Your task to perform on an android device: check out phone information Image 0: 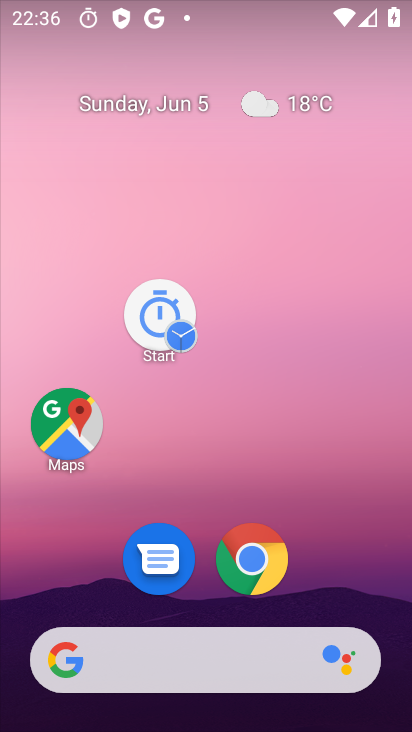
Step 0: drag from (272, 654) to (216, 63)
Your task to perform on an android device: check out phone information Image 1: 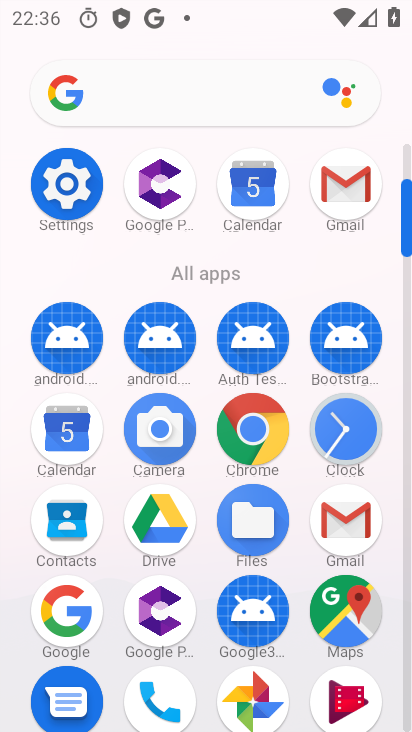
Step 1: click (167, 77)
Your task to perform on an android device: check out phone information Image 2: 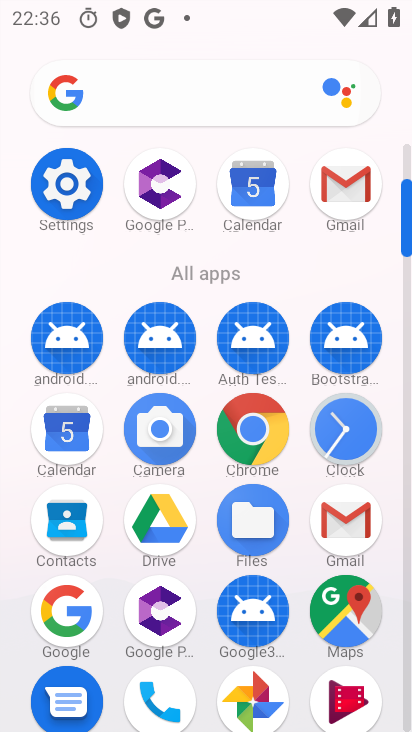
Step 2: drag from (185, 433) to (153, 148)
Your task to perform on an android device: check out phone information Image 3: 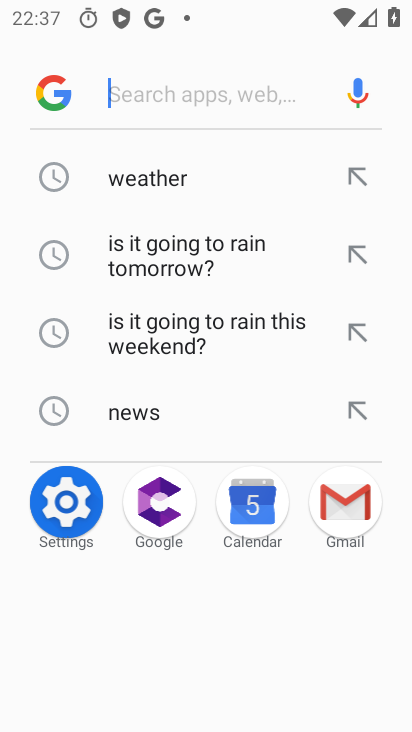
Step 3: drag from (304, 562) to (267, 259)
Your task to perform on an android device: check out phone information Image 4: 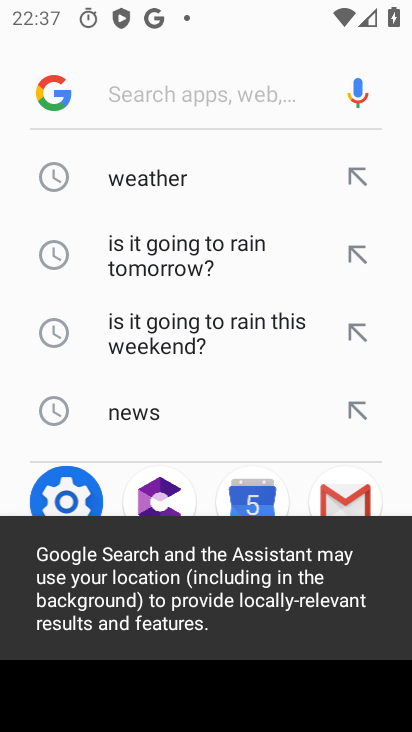
Step 4: press back button
Your task to perform on an android device: check out phone information Image 5: 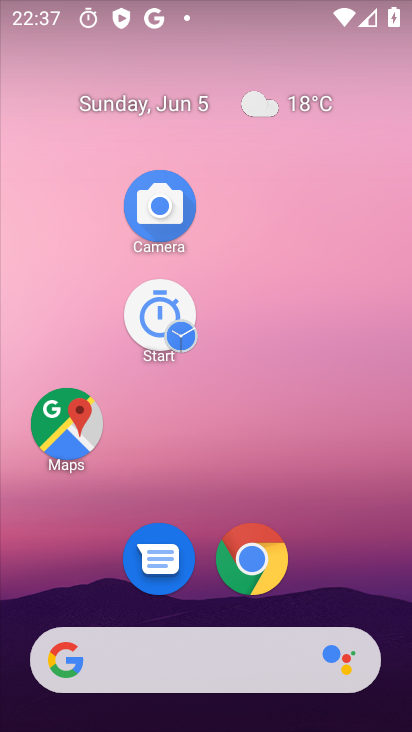
Step 5: drag from (270, 536) to (269, 181)
Your task to perform on an android device: check out phone information Image 6: 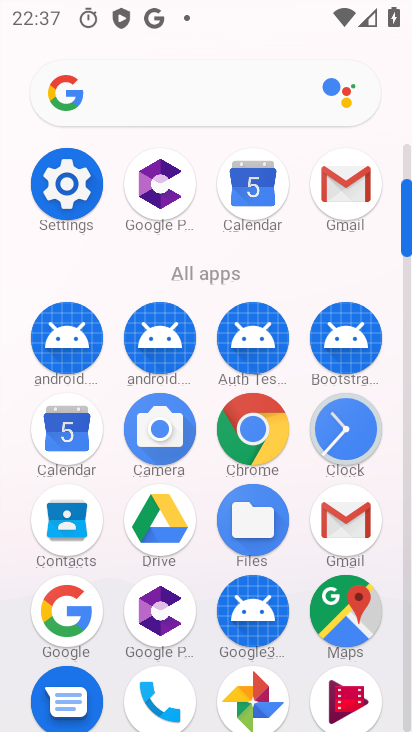
Step 6: click (157, 693)
Your task to perform on an android device: check out phone information Image 7: 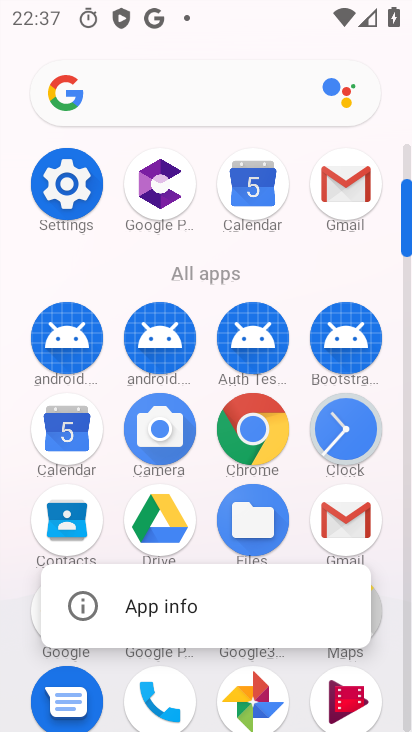
Step 7: click (287, 252)
Your task to perform on an android device: check out phone information Image 8: 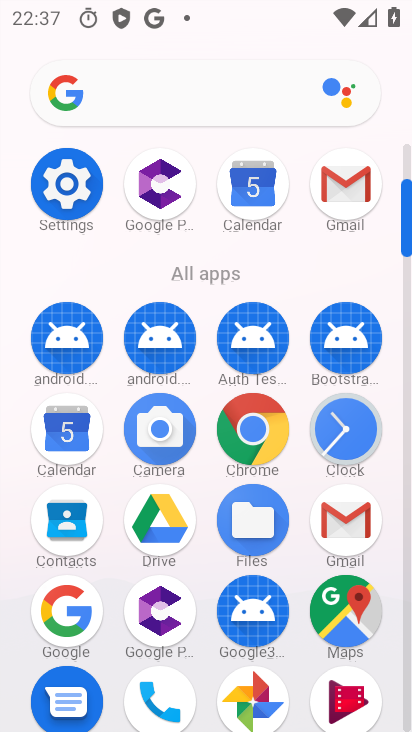
Step 8: click (70, 189)
Your task to perform on an android device: check out phone information Image 9: 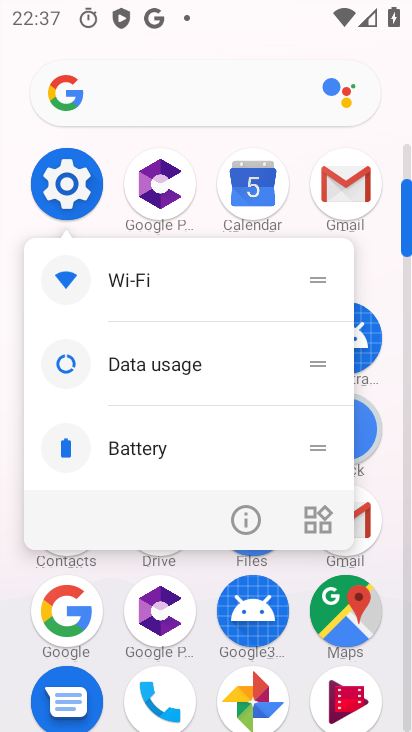
Step 9: click (63, 194)
Your task to perform on an android device: check out phone information Image 10: 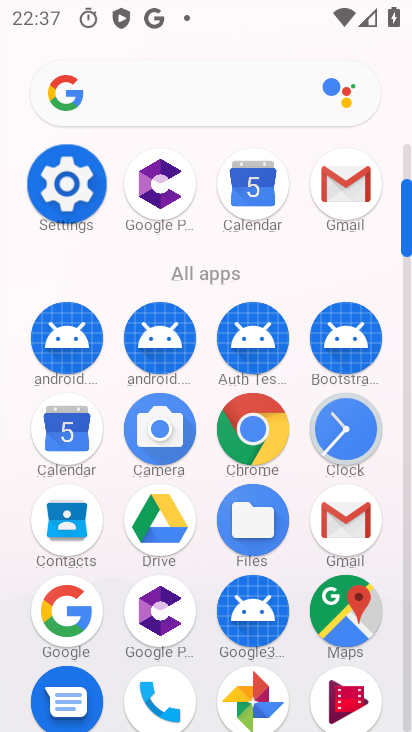
Step 10: click (62, 195)
Your task to perform on an android device: check out phone information Image 11: 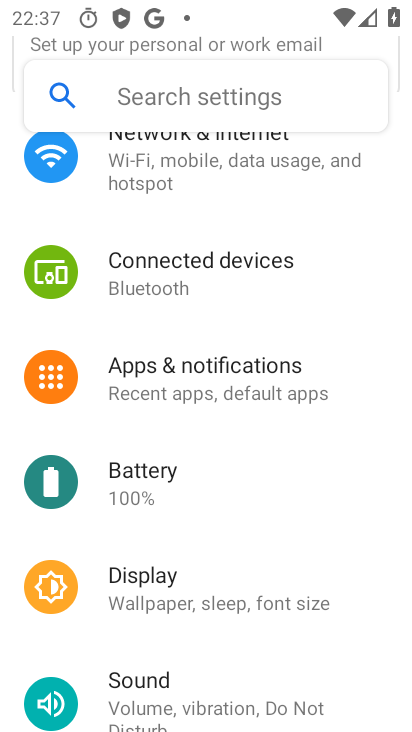
Step 11: click (62, 195)
Your task to perform on an android device: check out phone information Image 12: 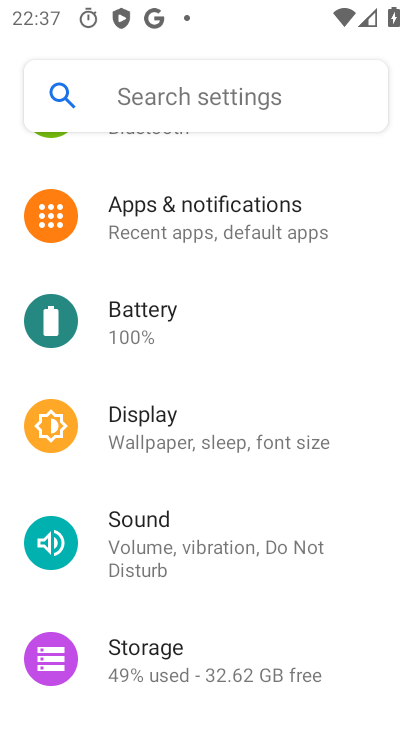
Step 12: drag from (205, 509) to (155, 133)
Your task to perform on an android device: check out phone information Image 13: 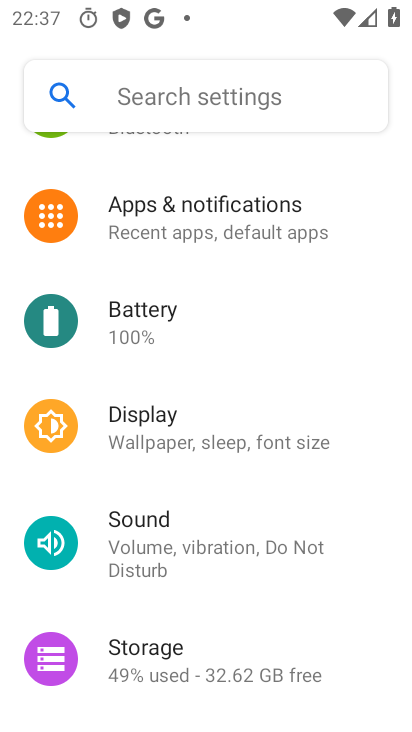
Step 13: drag from (172, 334) to (170, 147)
Your task to perform on an android device: check out phone information Image 14: 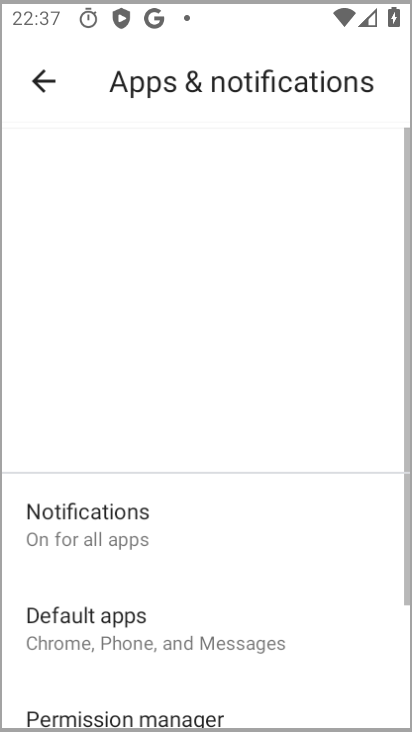
Step 14: drag from (198, 525) to (179, 115)
Your task to perform on an android device: check out phone information Image 15: 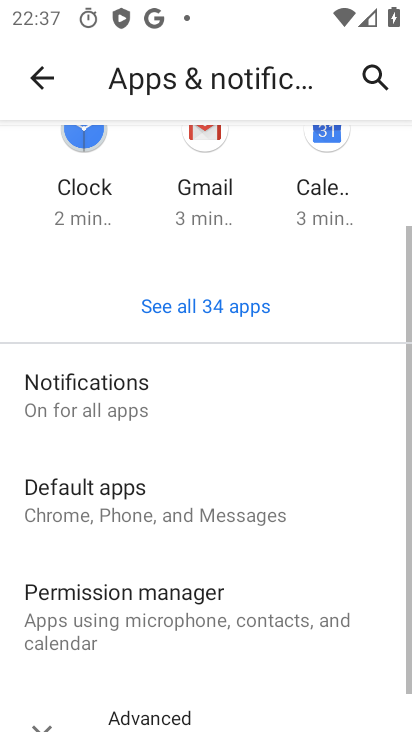
Step 15: click (42, 86)
Your task to perform on an android device: check out phone information Image 16: 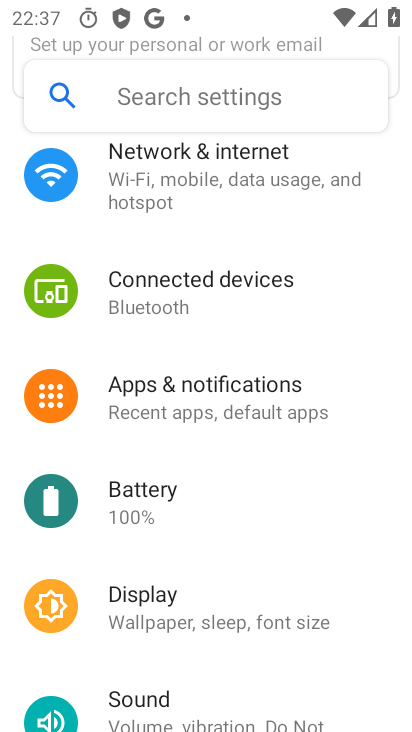
Step 16: drag from (177, 535) to (229, 34)
Your task to perform on an android device: check out phone information Image 17: 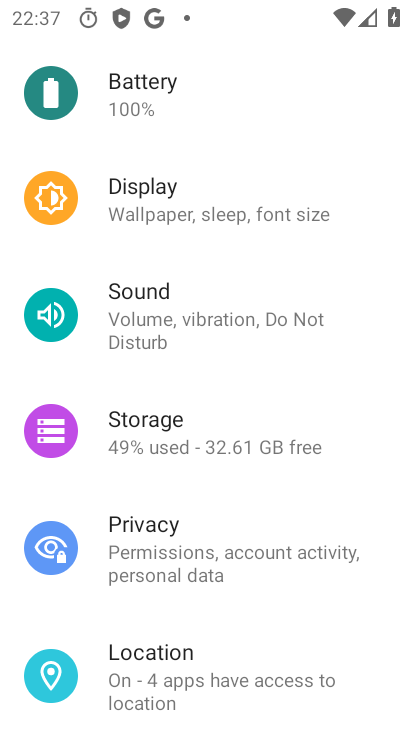
Step 17: drag from (238, 381) to (193, 109)
Your task to perform on an android device: check out phone information Image 18: 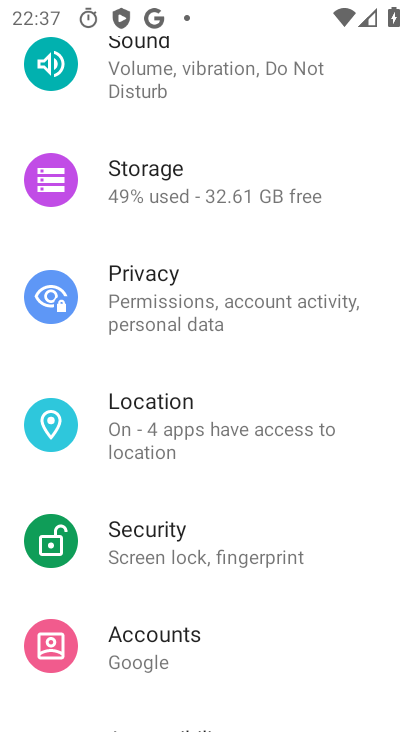
Step 18: drag from (125, 551) to (120, 175)
Your task to perform on an android device: check out phone information Image 19: 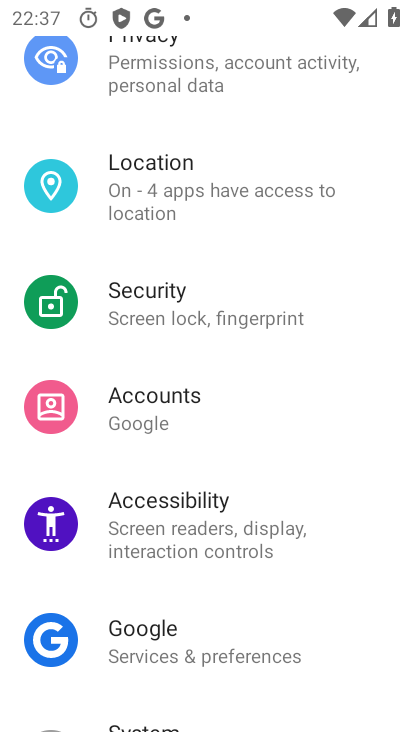
Step 19: drag from (135, 404) to (103, 183)
Your task to perform on an android device: check out phone information Image 20: 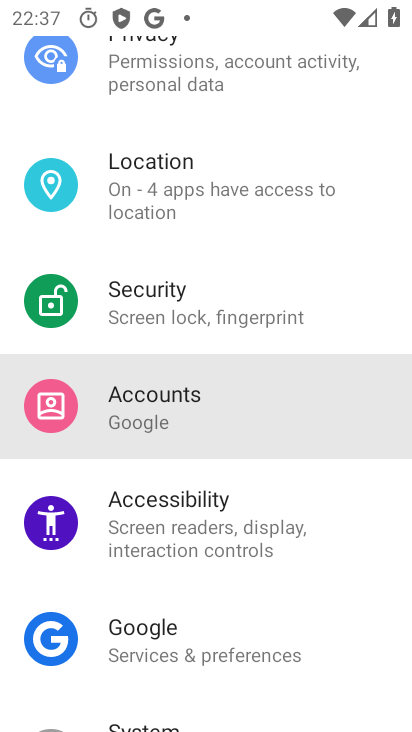
Step 20: drag from (180, 503) to (180, 223)
Your task to perform on an android device: check out phone information Image 21: 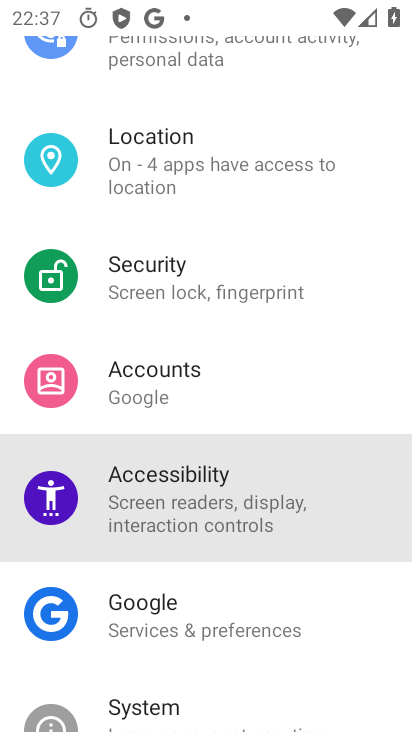
Step 21: drag from (195, 471) to (176, 220)
Your task to perform on an android device: check out phone information Image 22: 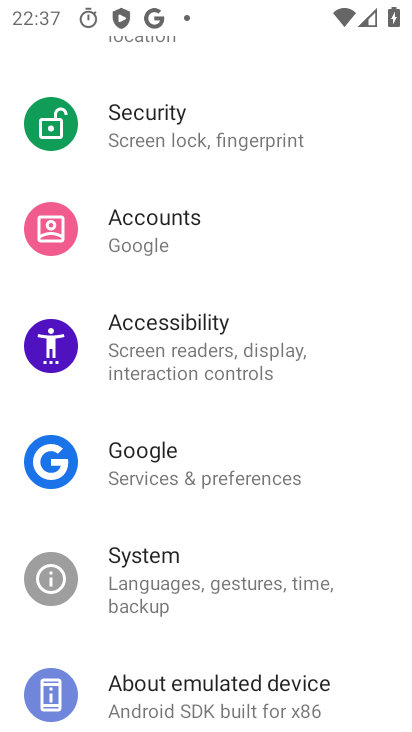
Step 22: drag from (142, 632) to (174, 118)
Your task to perform on an android device: check out phone information Image 23: 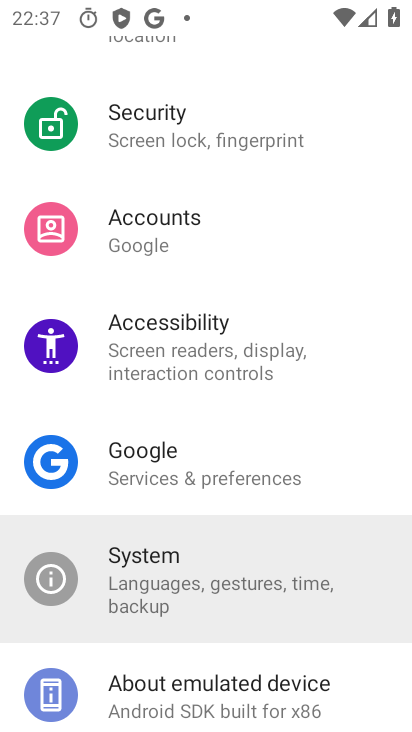
Step 23: drag from (151, 390) to (130, 170)
Your task to perform on an android device: check out phone information Image 24: 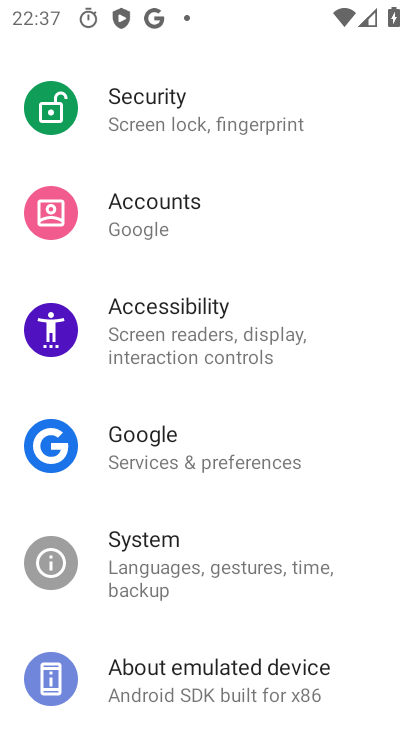
Step 24: click (190, 680)
Your task to perform on an android device: check out phone information Image 25: 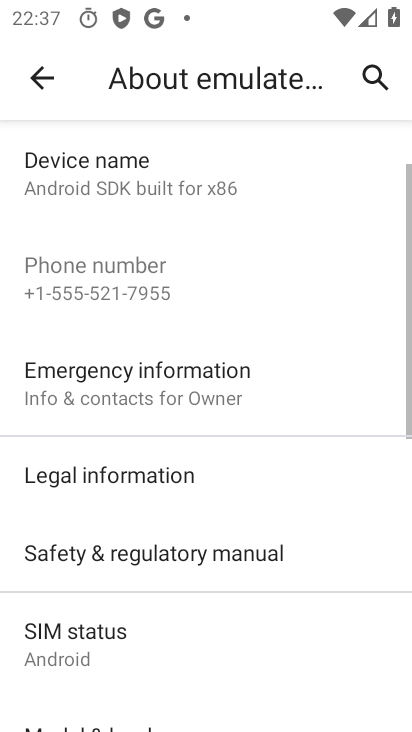
Step 25: task complete